Your task to perform on an android device: Go to privacy settings Image 0: 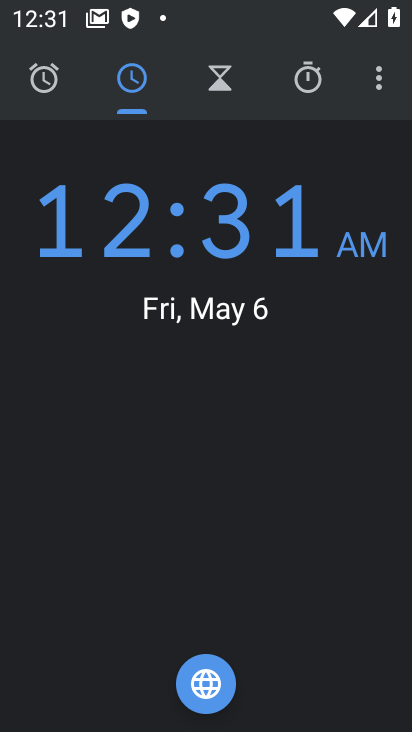
Step 0: press home button
Your task to perform on an android device: Go to privacy settings Image 1: 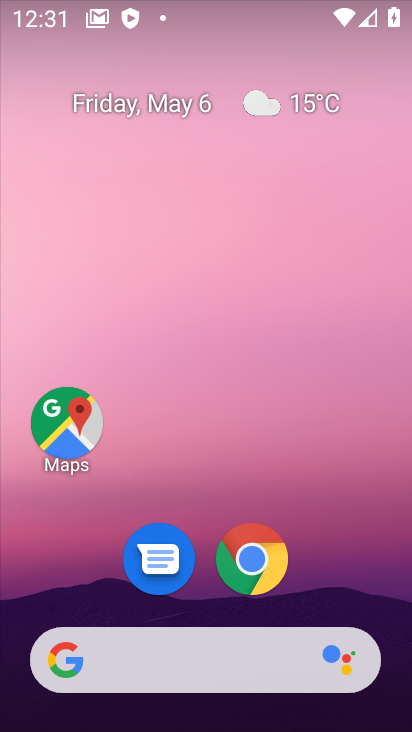
Step 1: drag from (227, 620) to (248, 12)
Your task to perform on an android device: Go to privacy settings Image 2: 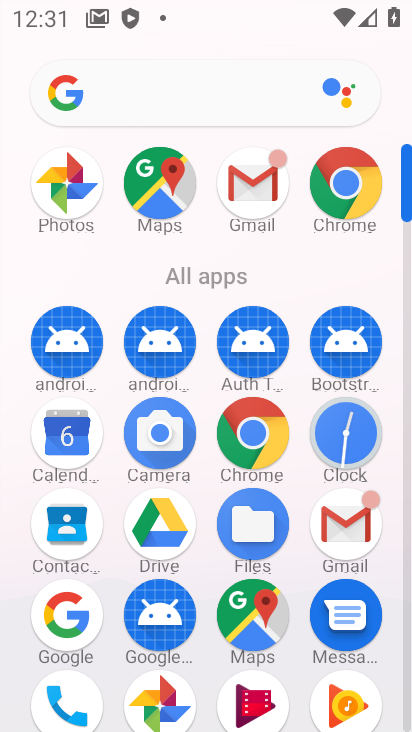
Step 2: drag from (112, 654) to (72, 281)
Your task to perform on an android device: Go to privacy settings Image 3: 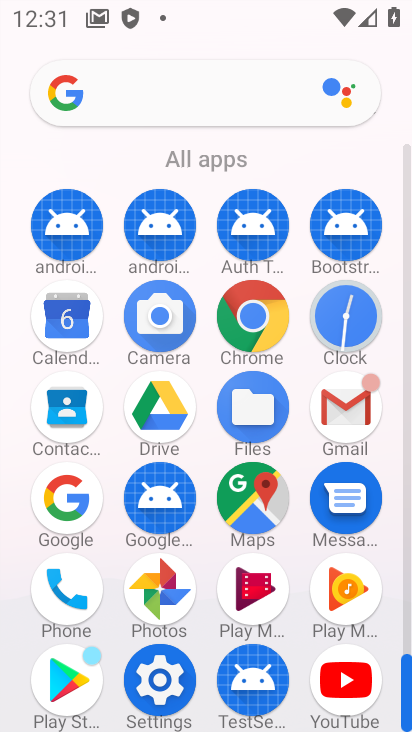
Step 3: click (169, 686)
Your task to perform on an android device: Go to privacy settings Image 4: 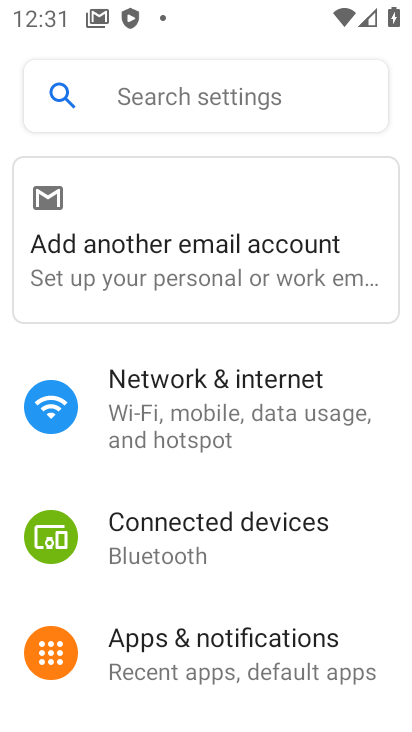
Step 4: drag from (162, 587) to (85, 103)
Your task to perform on an android device: Go to privacy settings Image 5: 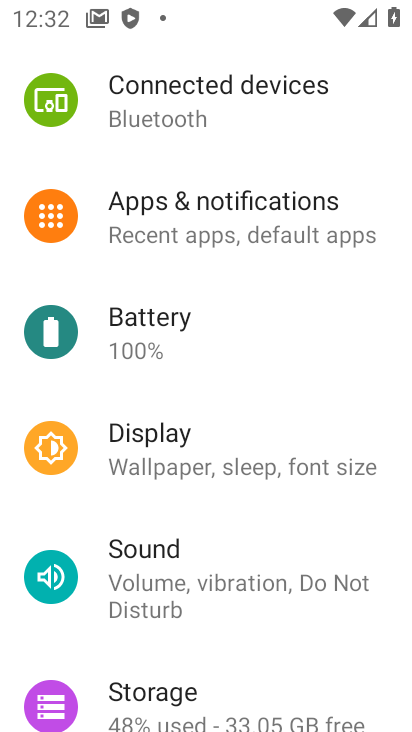
Step 5: drag from (165, 573) to (182, 3)
Your task to perform on an android device: Go to privacy settings Image 6: 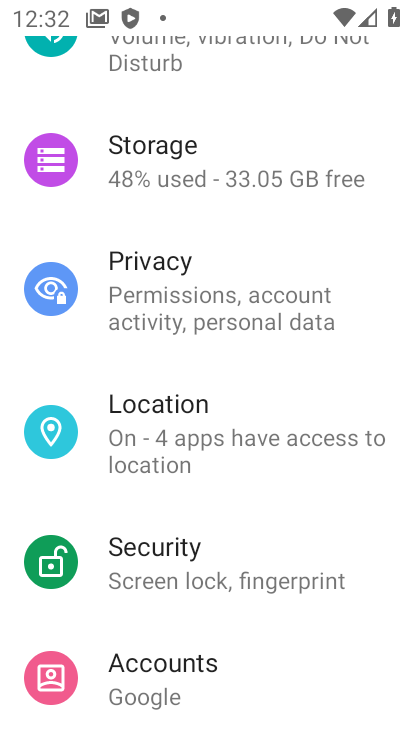
Step 6: click (149, 306)
Your task to perform on an android device: Go to privacy settings Image 7: 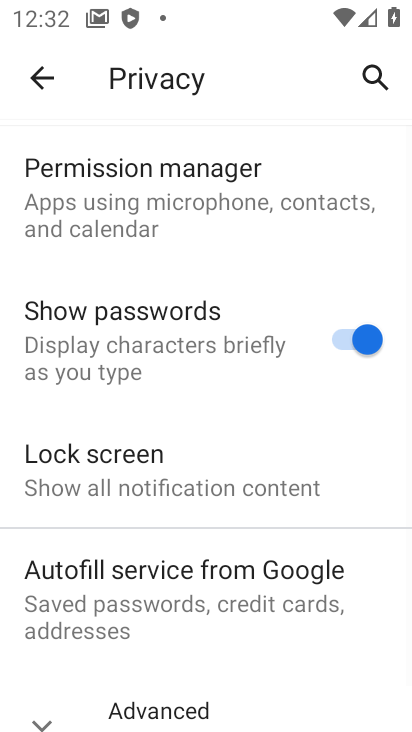
Step 7: task complete